Your task to perform on an android device: Is it going to rain today? Image 0: 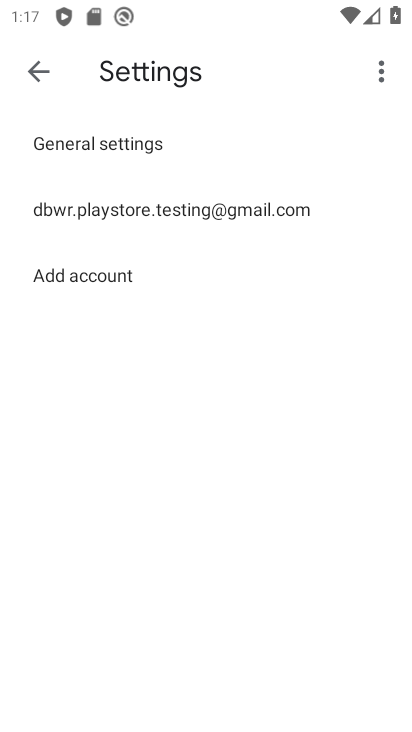
Step 0: press back button
Your task to perform on an android device: Is it going to rain today? Image 1: 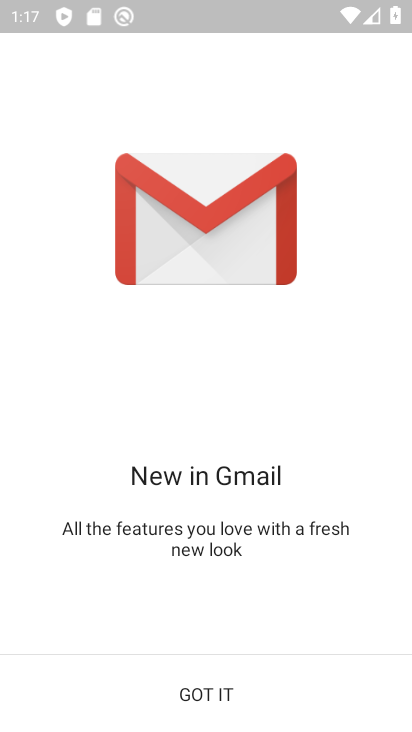
Step 1: press back button
Your task to perform on an android device: Is it going to rain today? Image 2: 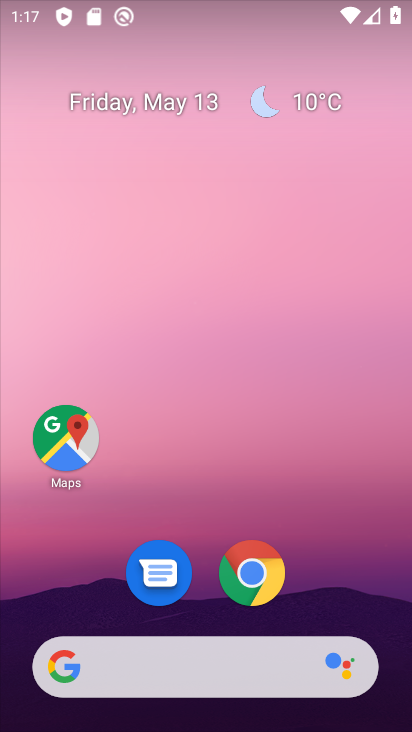
Step 2: drag from (294, 571) to (220, 14)
Your task to perform on an android device: Is it going to rain today? Image 3: 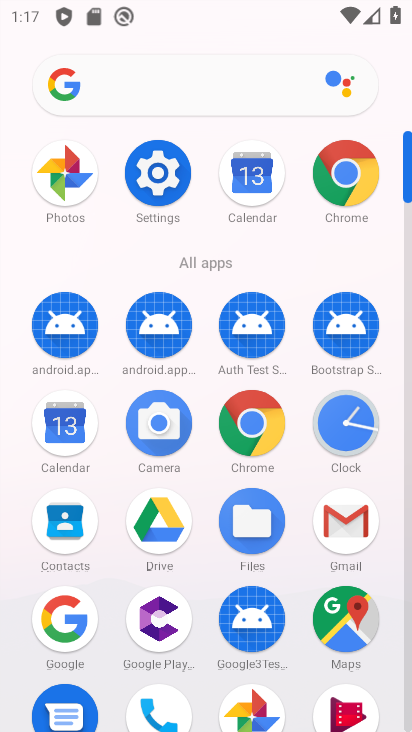
Step 3: drag from (26, 575) to (13, 246)
Your task to perform on an android device: Is it going to rain today? Image 4: 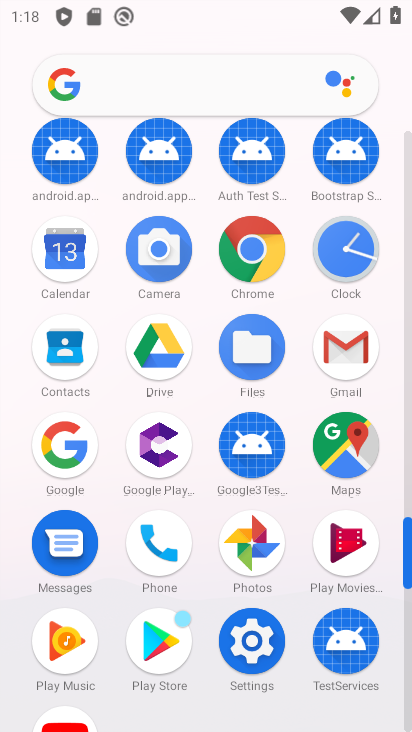
Step 4: click (252, 248)
Your task to perform on an android device: Is it going to rain today? Image 5: 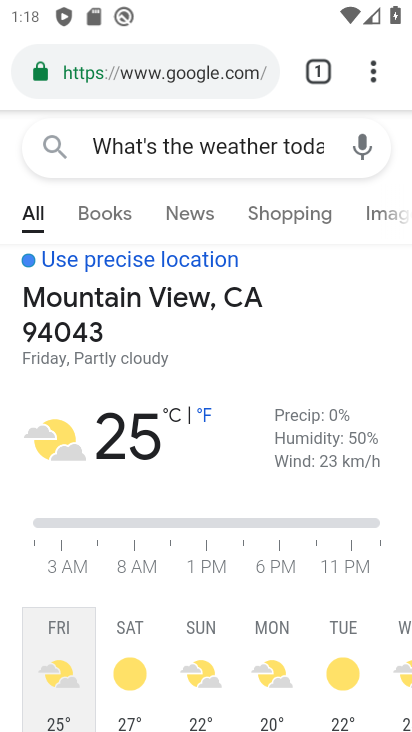
Step 5: click (201, 67)
Your task to perform on an android device: Is it going to rain today? Image 6: 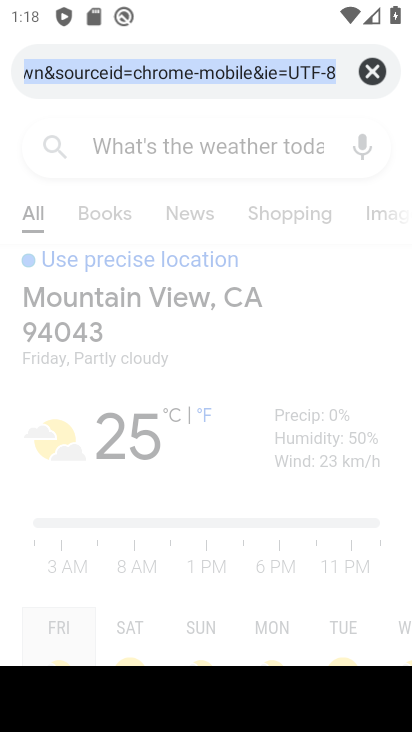
Step 6: click (380, 59)
Your task to perform on an android device: Is it going to rain today? Image 7: 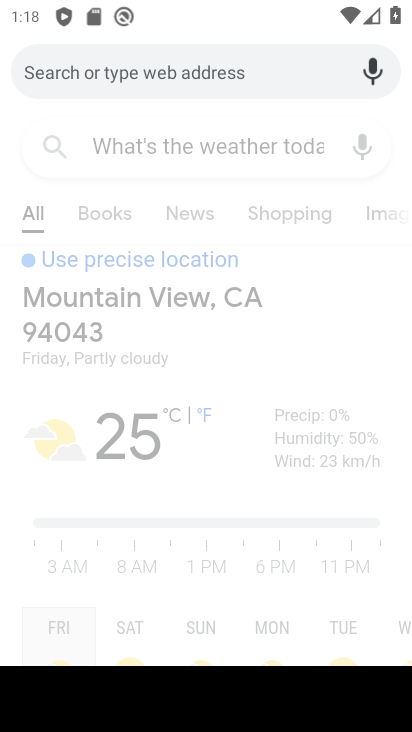
Step 7: click (97, 72)
Your task to perform on an android device: Is it going to rain today? Image 8: 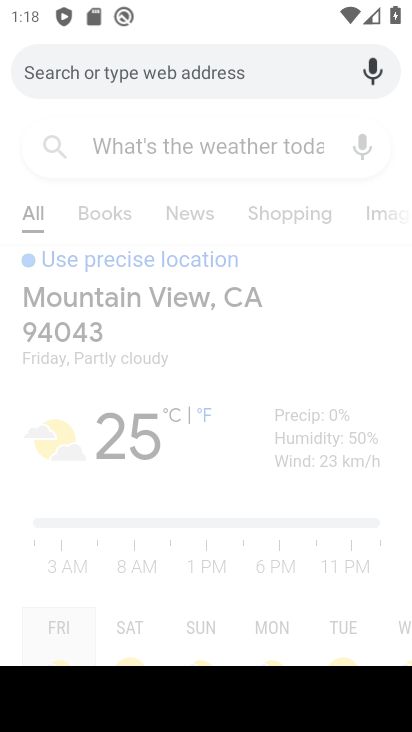
Step 8: type "Is it going to rain today?"
Your task to perform on an android device: Is it going to rain today? Image 9: 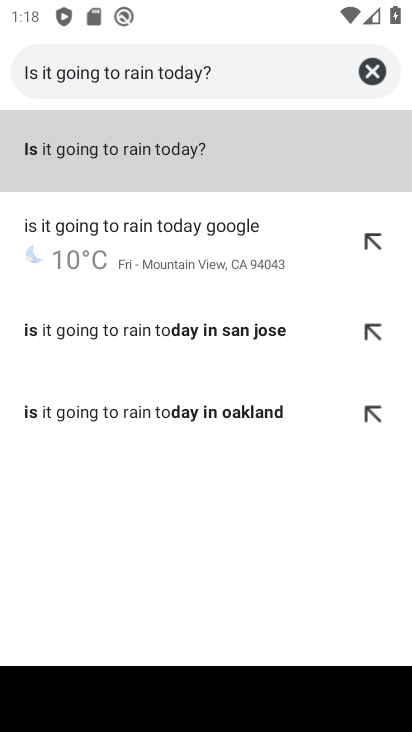
Step 9: click (214, 137)
Your task to perform on an android device: Is it going to rain today? Image 10: 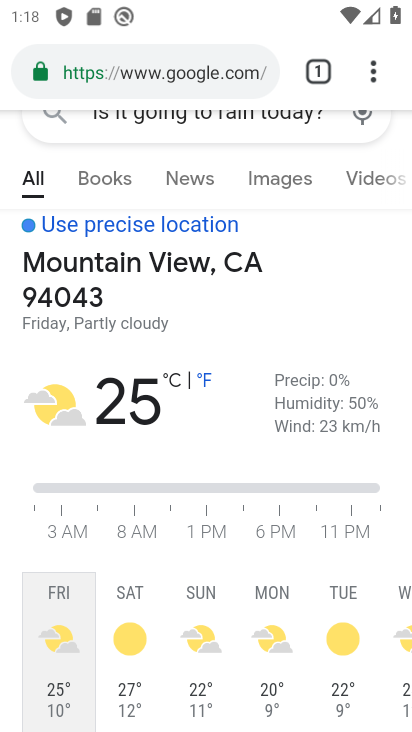
Step 10: task complete